Your task to perform on an android device: What is the recent news? Image 0: 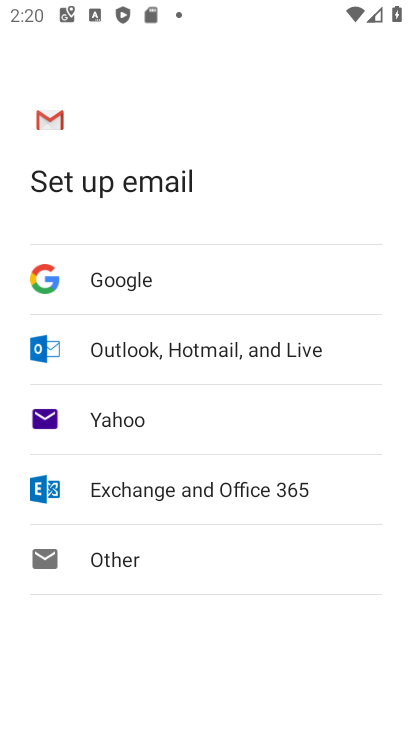
Step 0: press home button
Your task to perform on an android device: What is the recent news? Image 1: 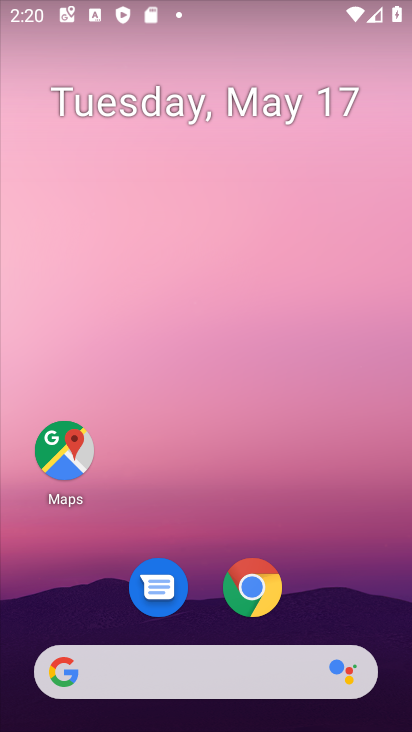
Step 1: drag from (186, 628) to (257, 432)
Your task to perform on an android device: What is the recent news? Image 2: 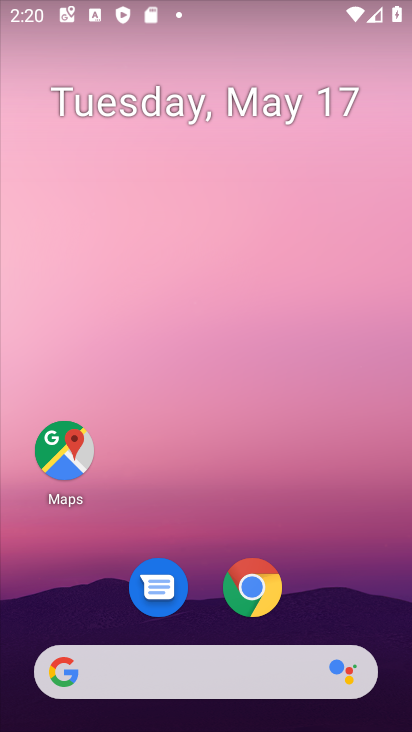
Step 2: drag from (196, 655) to (278, 411)
Your task to perform on an android device: What is the recent news? Image 3: 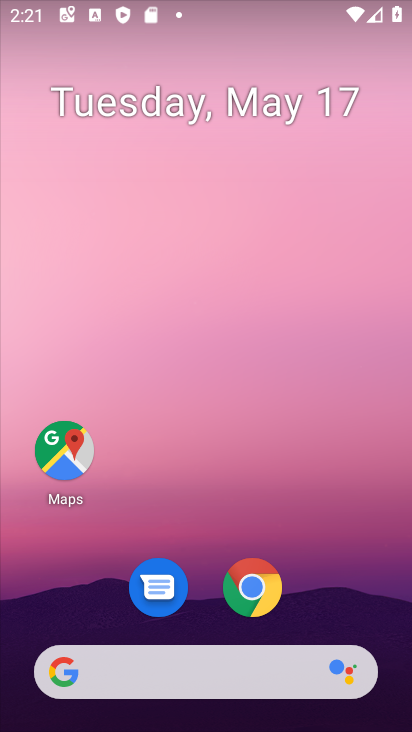
Step 3: drag from (207, 622) to (284, 361)
Your task to perform on an android device: What is the recent news? Image 4: 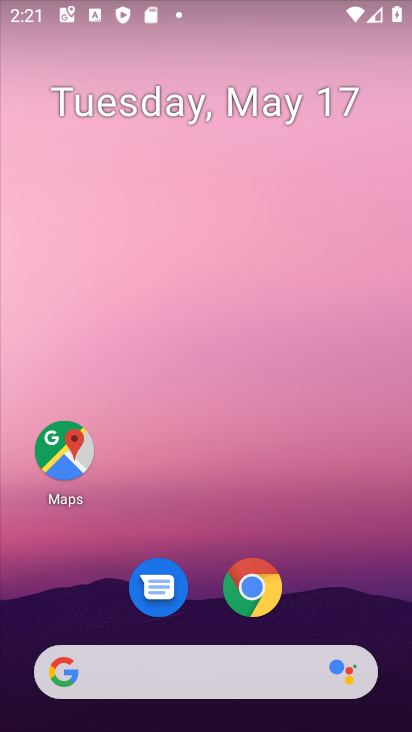
Step 4: drag from (176, 635) to (305, 213)
Your task to perform on an android device: What is the recent news? Image 5: 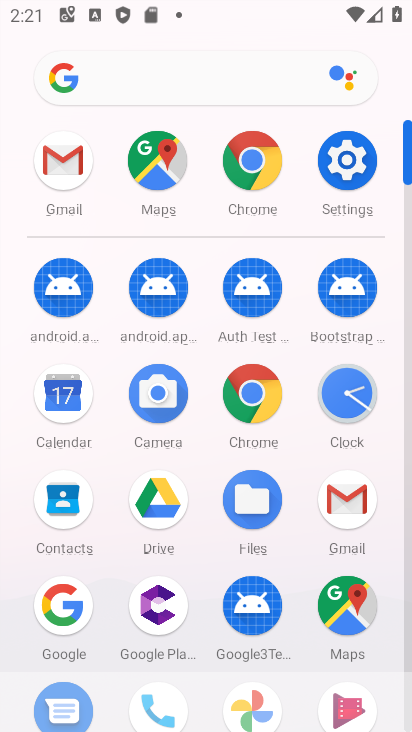
Step 5: click (176, 88)
Your task to perform on an android device: What is the recent news? Image 6: 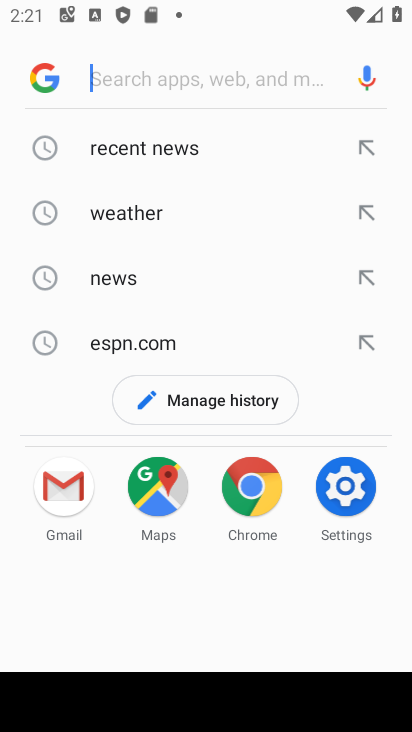
Step 6: click (196, 154)
Your task to perform on an android device: What is the recent news? Image 7: 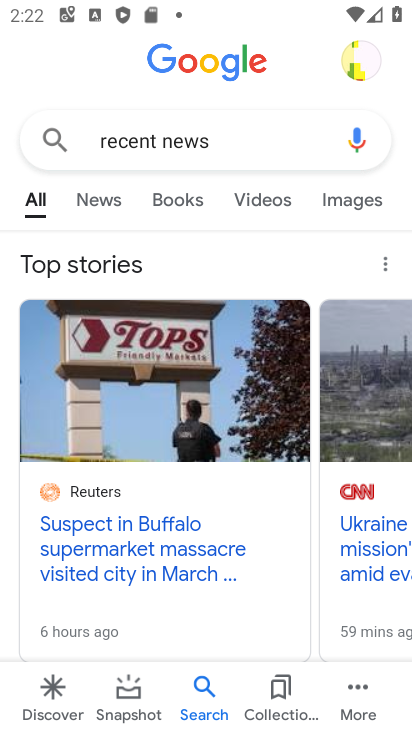
Step 7: task complete